Your task to perform on an android device: all mails in gmail Image 0: 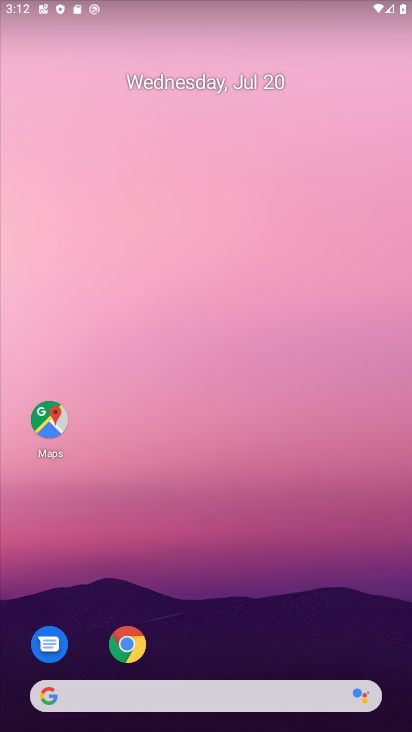
Step 0: drag from (200, 660) to (282, 187)
Your task to perform on an android device: all mails in gmail Image 1: 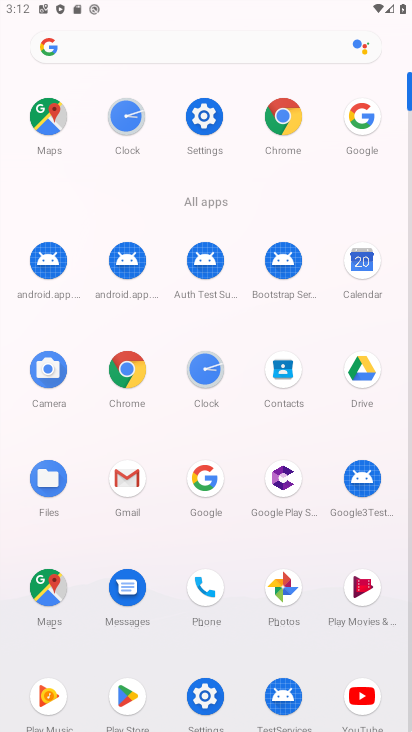
Step 1: click (123, 490)
Your task to perform on an android device: all mails in gmail Image 2: 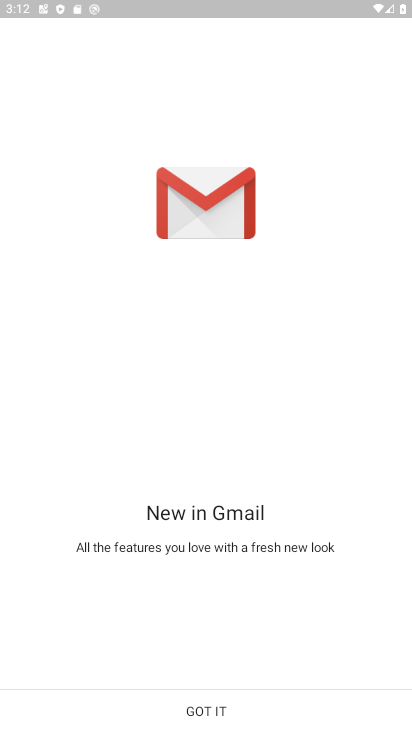
Step 2: click (193, 710)
Your task to perform on an android device: all mails in gmail Image 3: 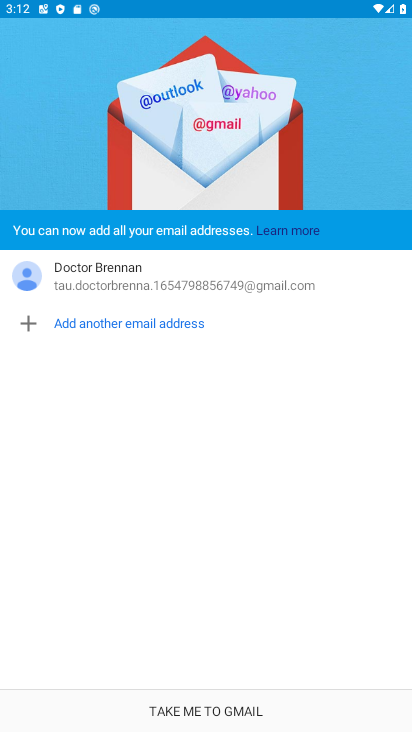
Step 3: click (192, 709)
Your task to perform on an android device: all mails in gmail Image 4: 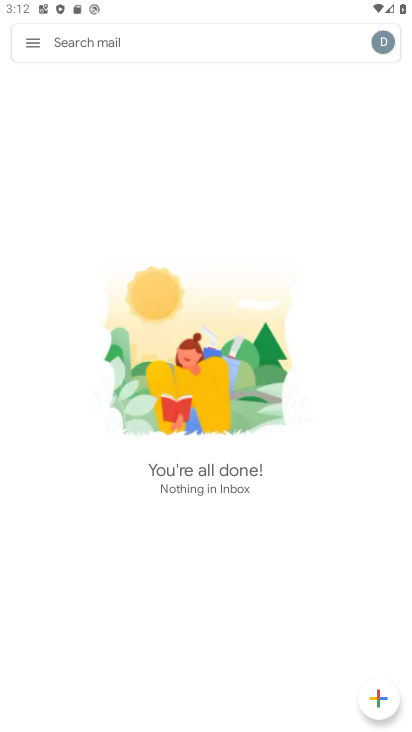
Step 4: click (38, 40)
Your task to perform on an android device: all mails in gmail Image 5: 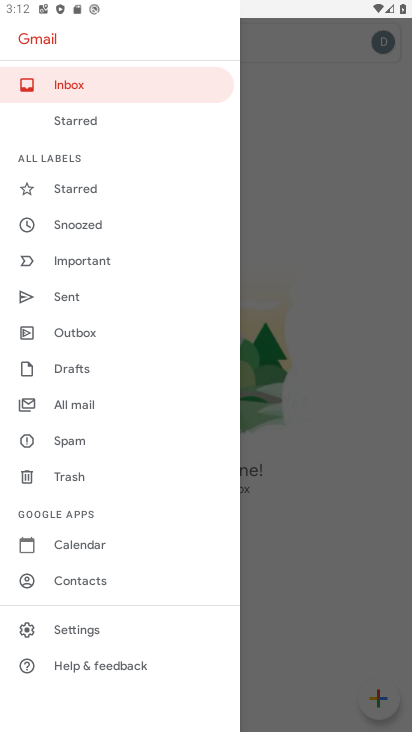
Step 5: click (92, 402)
Your task to perform on an android device: all mails in gmail Image 6: 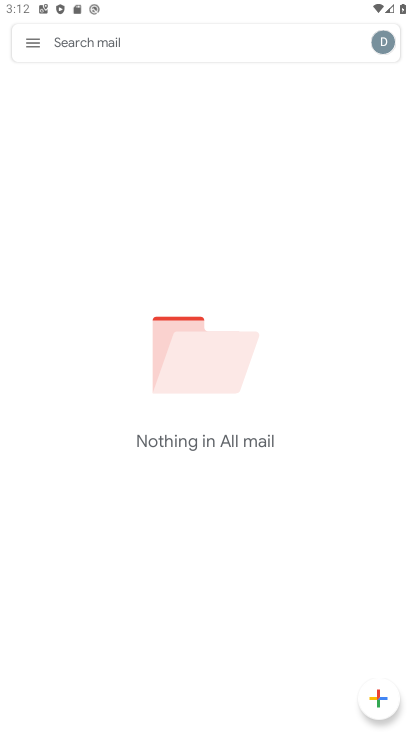
Step 6: task complete